Your task to perform on an android device: Show me popular videos on Youtube Image 0: 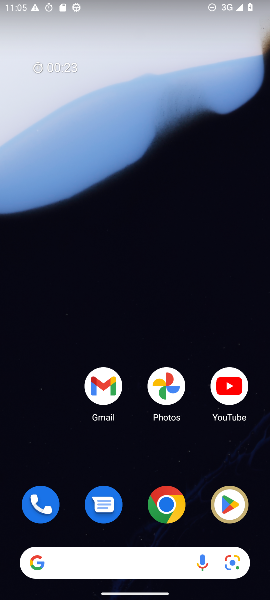
Step 0: drag from (137, 480) to (149, 168)
Your task to perform on an android device: Show me popular videos on Youtube Image 1: 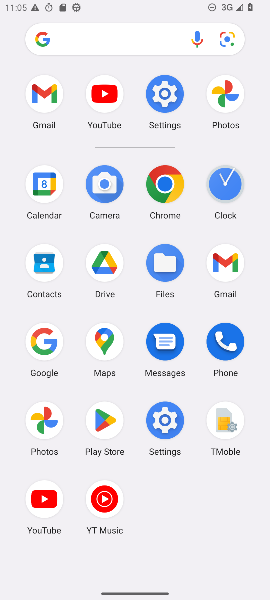
Step 1: click (46, 495)
Your task to perform on an android device: Show me popular videos on Youtube Image 2: 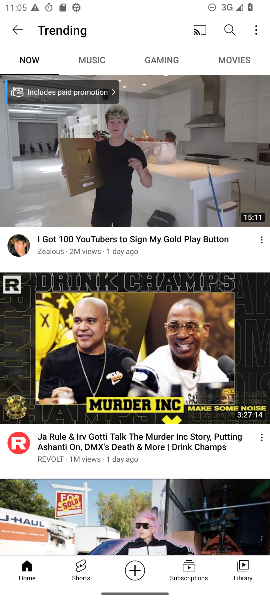
Step 2: task complete